Your task to perform on an android device: Turn off the flashlight Image 0: 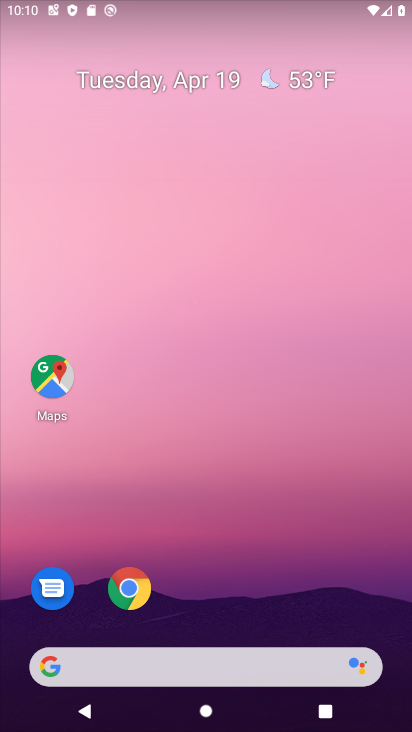
Step 0: drag from (130, 14) to (218, 537)
Your task to perform on an android device: Turn off the flashlight Image 1: 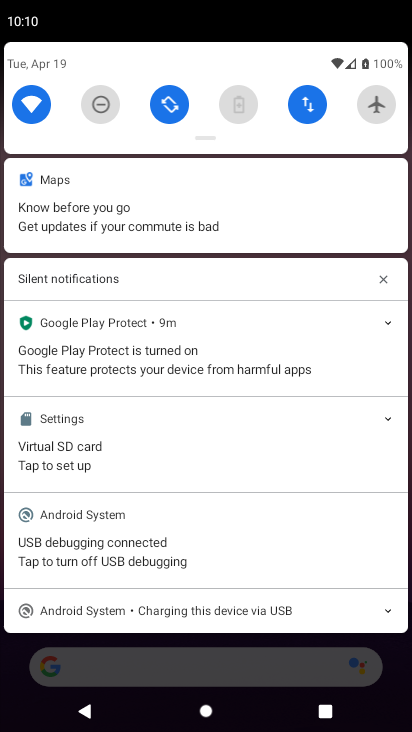
Step 1: task complete